Your task to perform on an android device: Go to calendar. Show me events next week Image 0: 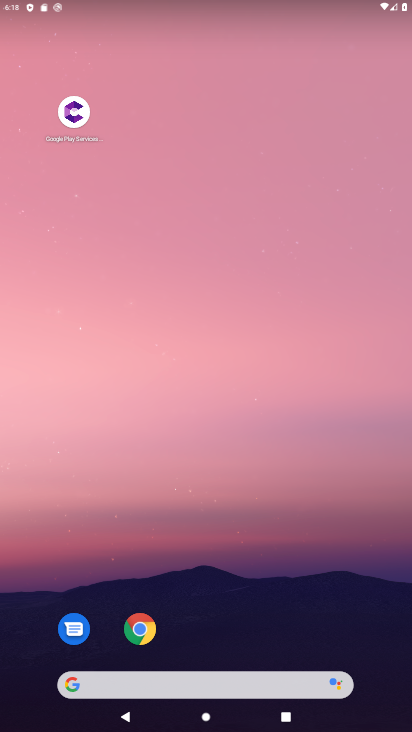
Step 0: drag from (294, 620) to (279, 21)
Your task to perform on an android device: Go to calendar. Show me events next week Image 1: 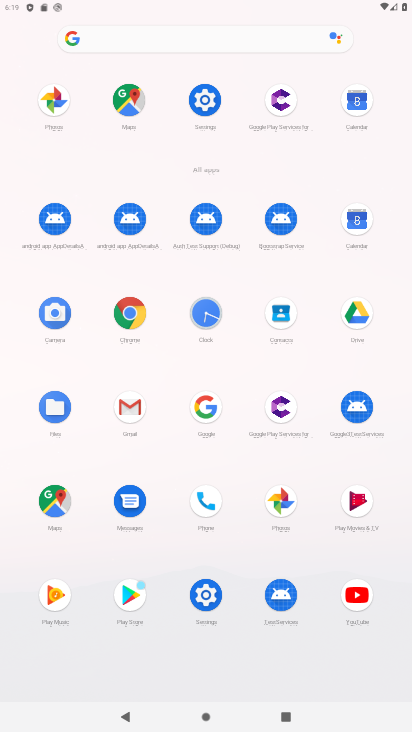
Step 1: click (368, 229)
Your task to perform on an android device: Go to calendar. Show me events next week Image 2: 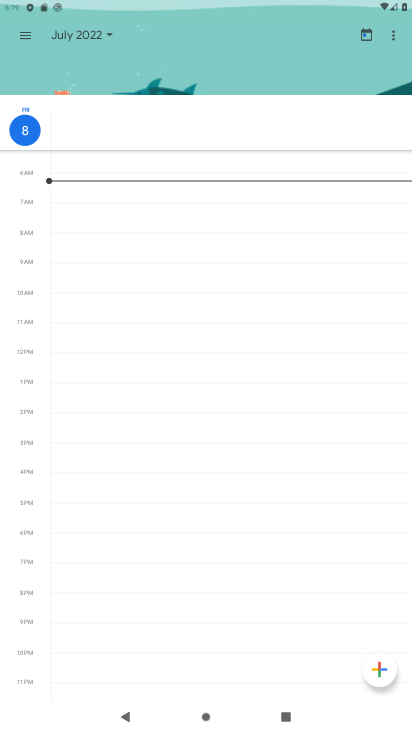
Step 2: click (110, 31)
Your task to perform on an android device: Go to calendar. Show me events next week Image 3: 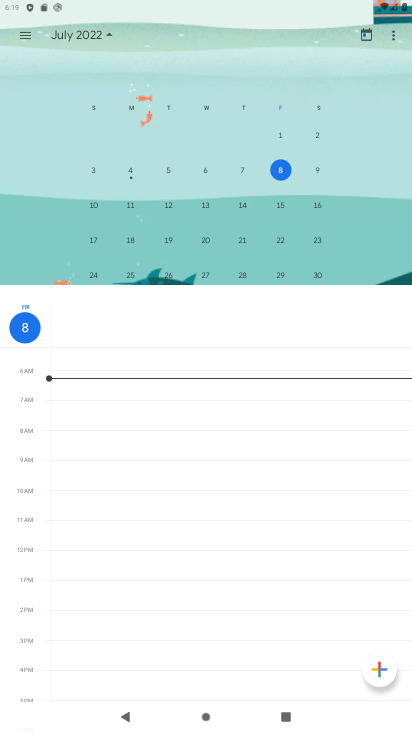
Step 3: click (271, 206)
Your task to perform on an android device: Go to calendar. Show me events next week Image 4: 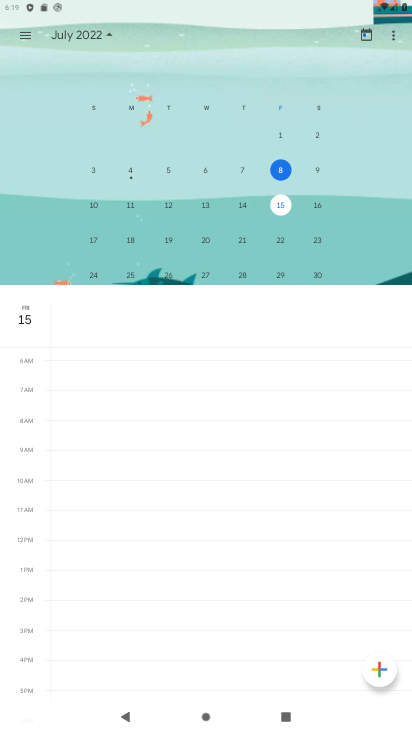
Step 4: task complete